Your task to perform on an android device: Search for Italian restaurants on Maps Image 0: 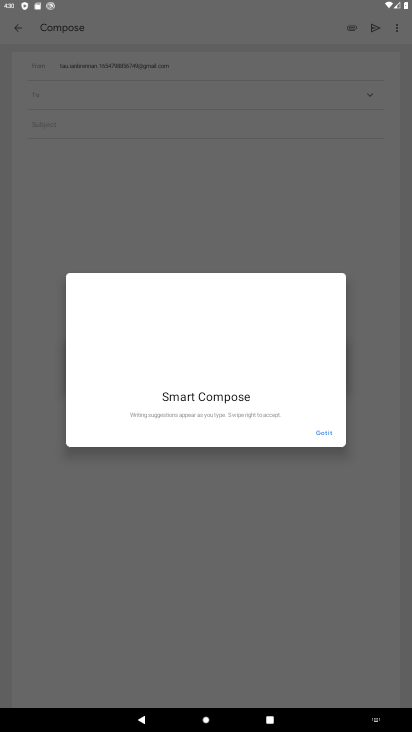
Step 0: press home button
Your task to perform on an android device: Search for Italian restaurants on Maps Image 1: 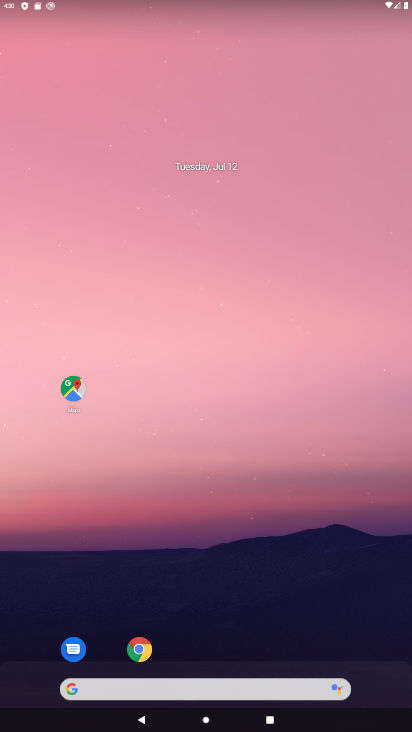
Step 1: click (68, 388)
Your task to perform on an android device: Search for Italian restaurants on Maps Image 2: 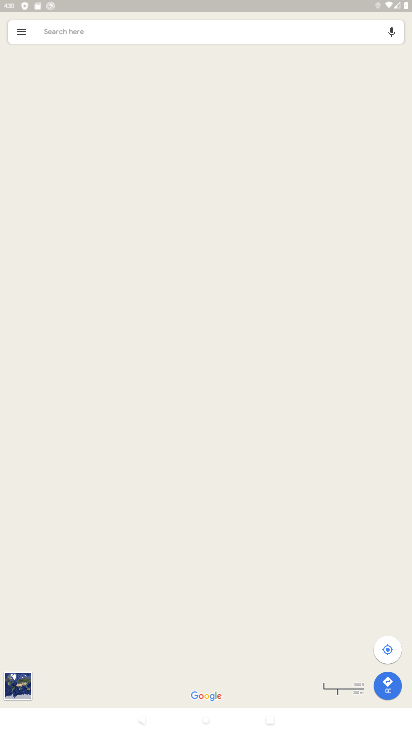
Step 2: click (169, 33)
Your task to perform on an android device: Search for Italian restaurants on Maps Image 3: 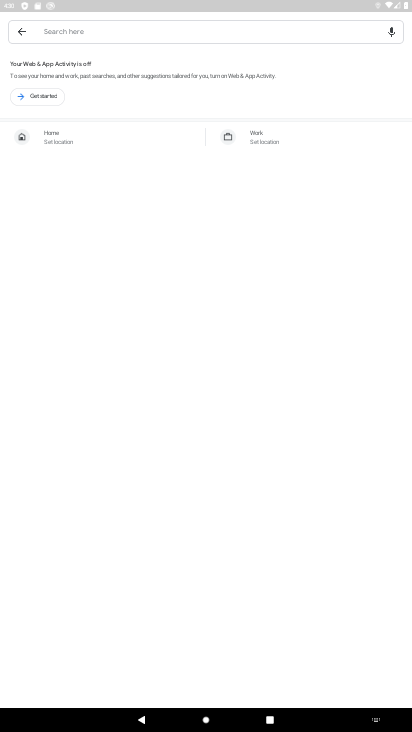
Step 3: type "italian restaurants"
Your task to perform on an android device: Search for Italian restaurants on Maps Image 4: 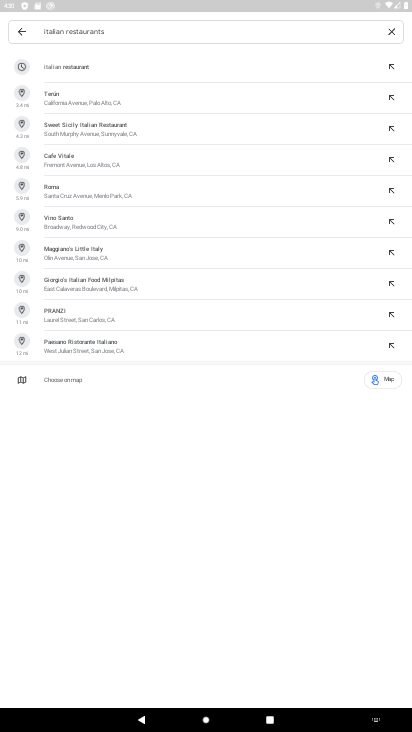
Step 4: click (119, 66)
Your task to perform on an android device: Search for Italian restaurants on Maps Image 5: 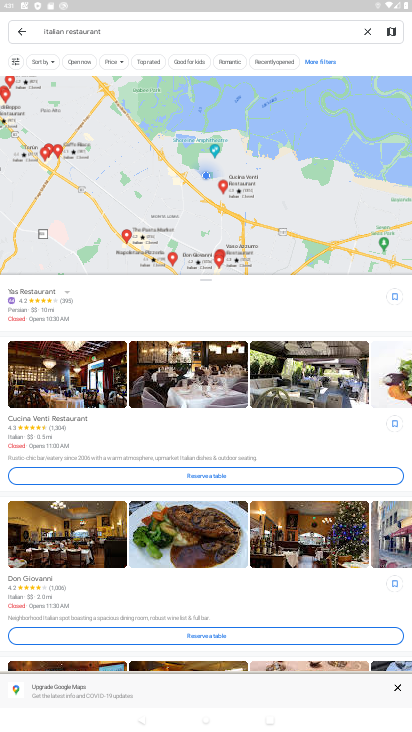
Step 5: task complete